Your task to perform on an android device: Open internet settings Image 0: 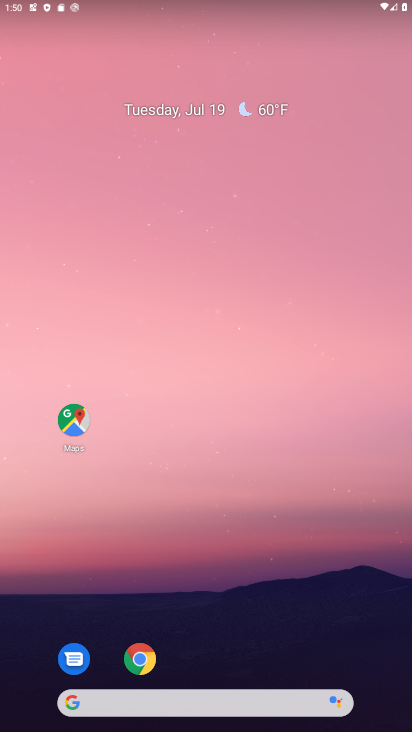
Step 0: drag from (254, 628) to (142, 125)
Your task to perform on an android device: Open internet settings Image 1: 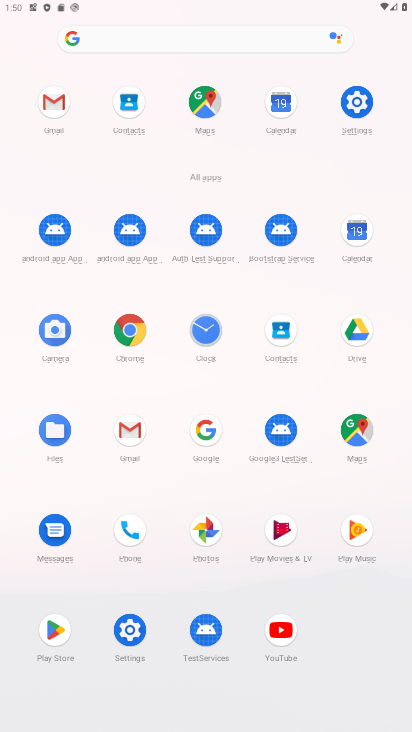
Step 1: click (123, 632)
Your task to perform on an android device: Open internet settings Image 2: 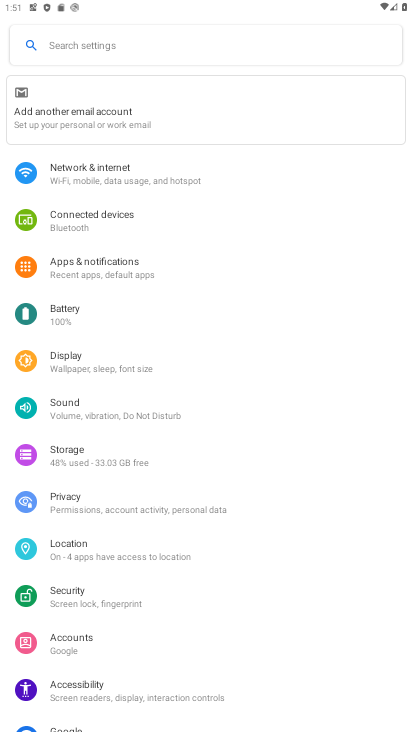
Step 2: click (74, 171)
Your task to perform on an android device: Open internet settings Image 3: 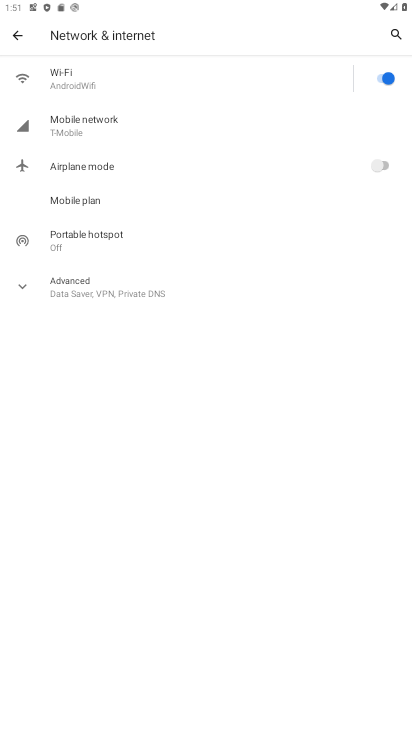
Step 3: task complete